Your task to perform on an android device: Open display settings Image 0: 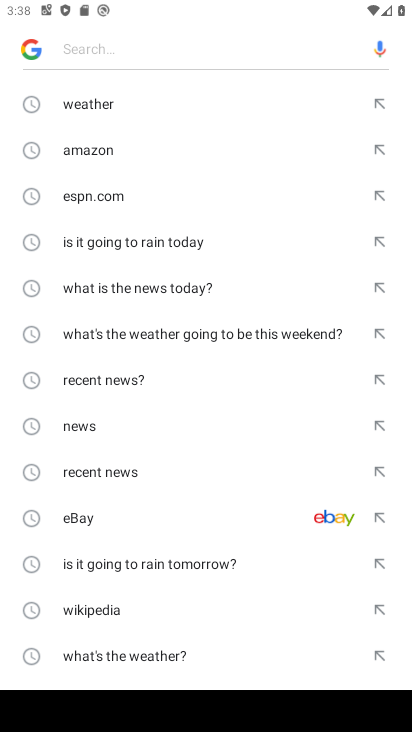
Step 0: press home button
Your task to perform on an android device: Open display settings Image 1: 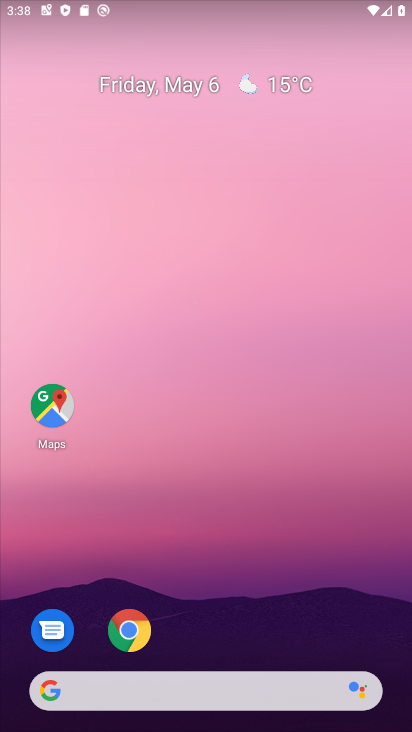
Step 1: drag from (174, 649) to (213, 88)
Your task to perform on an android device: Open display settings Image 2: 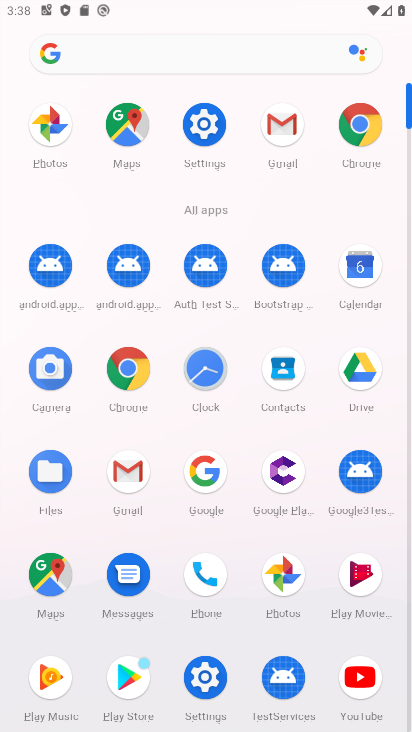
Step 2: click (194, 668)
Your task to perform on an android device: Open display settings Image 3: 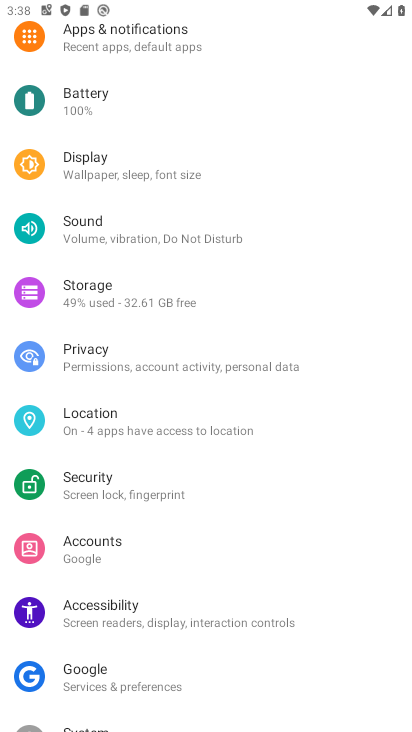
Step 3: click (116, 184)
Your task to perform on an android device: Open display settings Image 4: 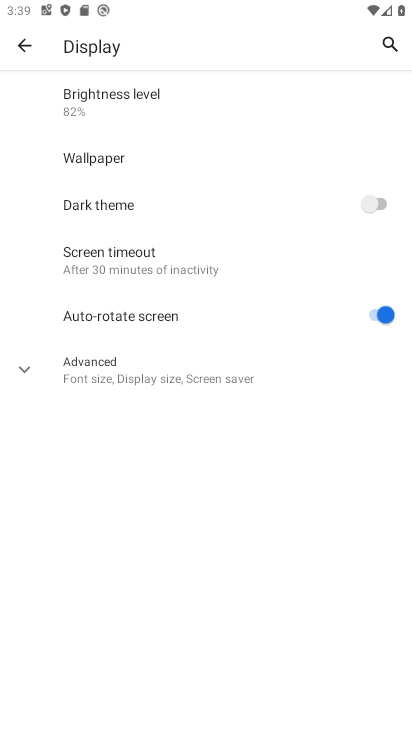
Step 4: task complete